Your task to perform on an android device: change the clock display to analog Image 0: 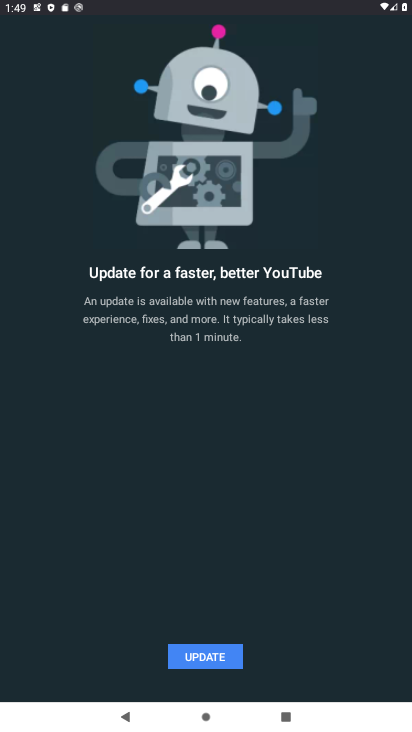
Step 0: press home button
Your task to perform on an android device: change the clock display to analog Image 1: 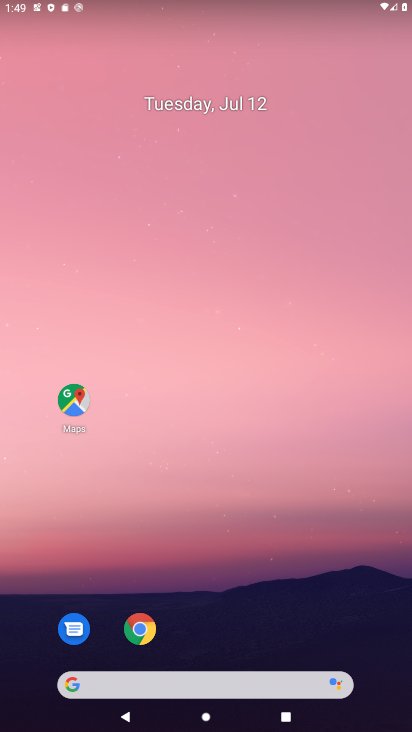
Step 1: drag from (261, 619) to (247, 181)
Your task to perform on an android device: change the clock display to analog Image 2: 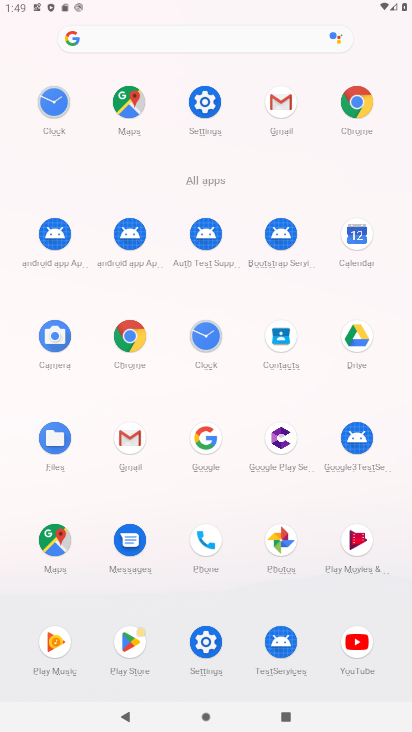
Step 2: click (205, 336)
Your task to perform on an android device: change the clock display to analog Image 3: 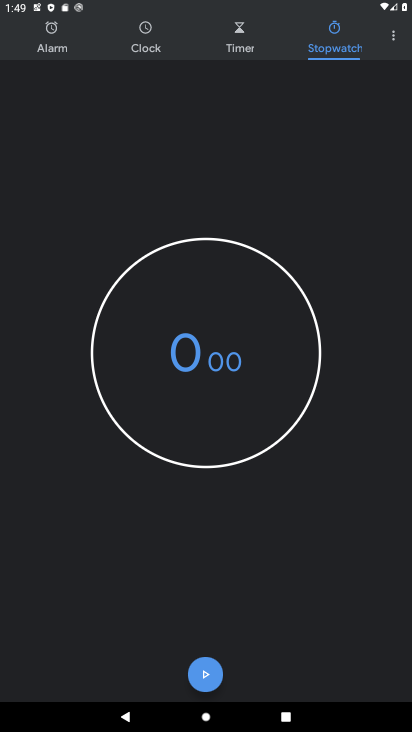
Step 3: click (398, 37)
Your task to perform on an android device: change the clock display to analog Image 4: 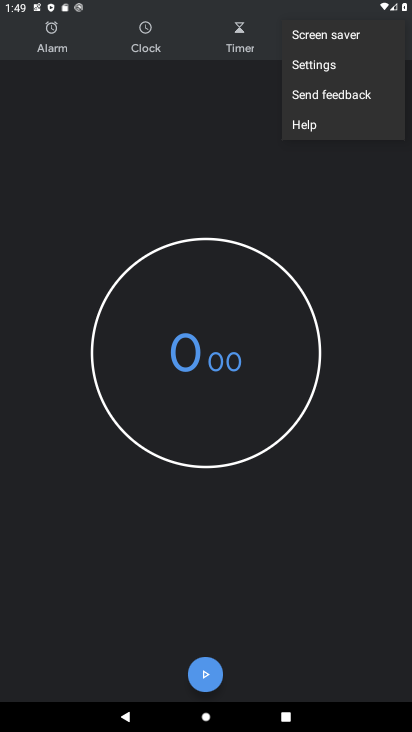
Step 4: click (343, 66)
Your task to perform on an android device: change the clock display to analog Image 5: 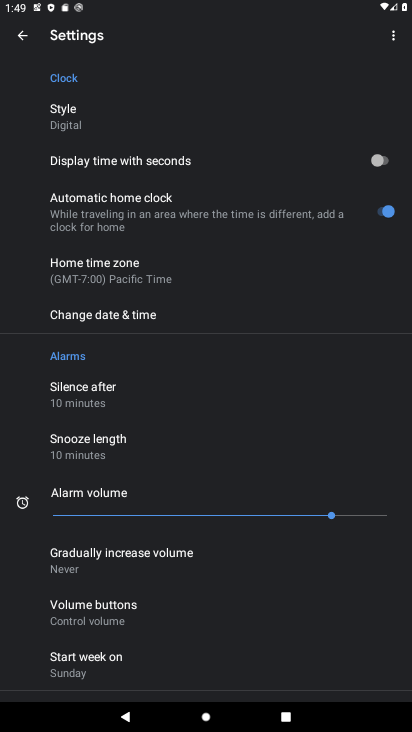
Step 5: click (142, 112)
Your task to perform on an android device: change the clock display to analog Image 6: 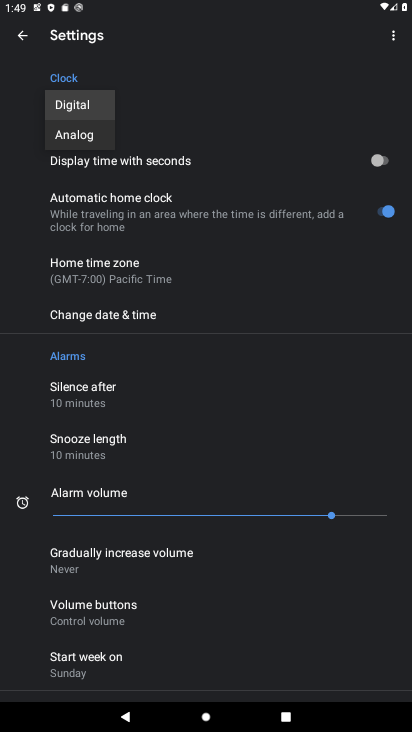
Step 6: click (88, 137)
Your task to perform on an android device: change the clock display to analog Image 7: 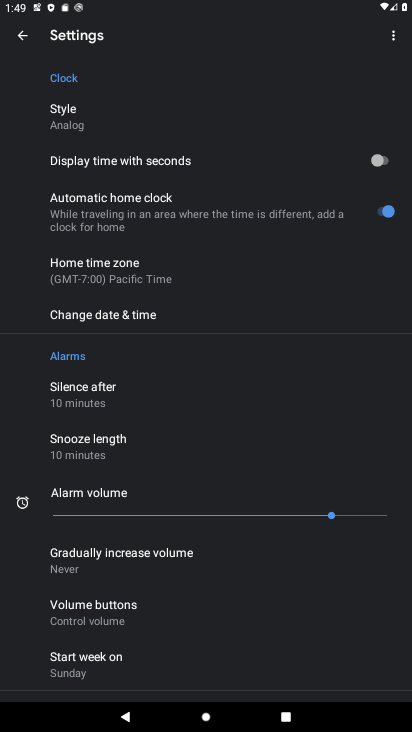
Step 7: task complete